Your task to perform on an android device: Show me popular games on the Play Store Image 0: 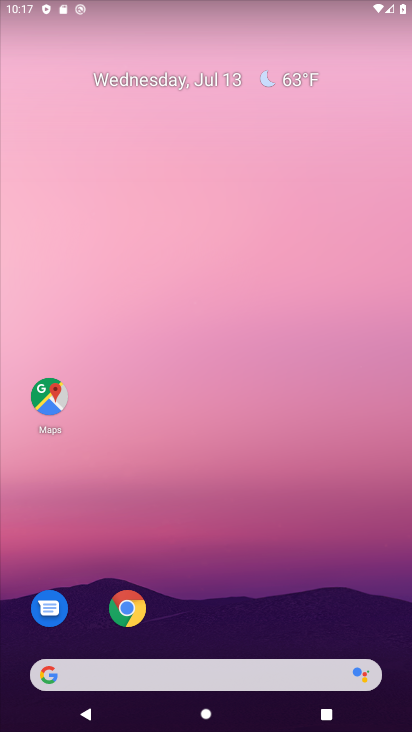
Step 0: drag from (308, 582) to (359, 47)
Your task to perform on an android device: Show me popular games on the Play Store Image 1: 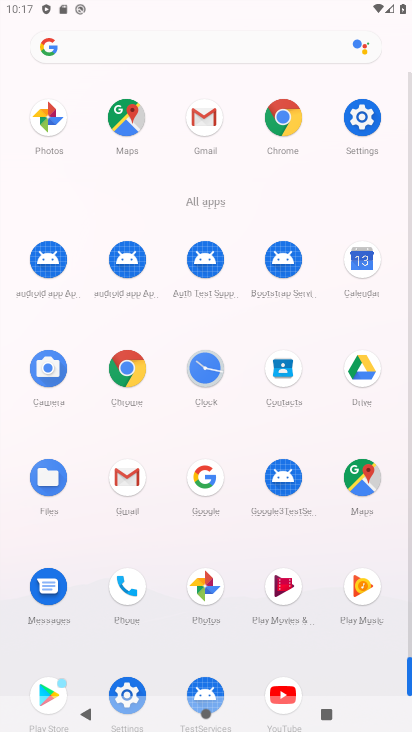
Step 1: click (47, 683)
Your task to perform on an android device: Show me popular games on the Play Store Image 2: 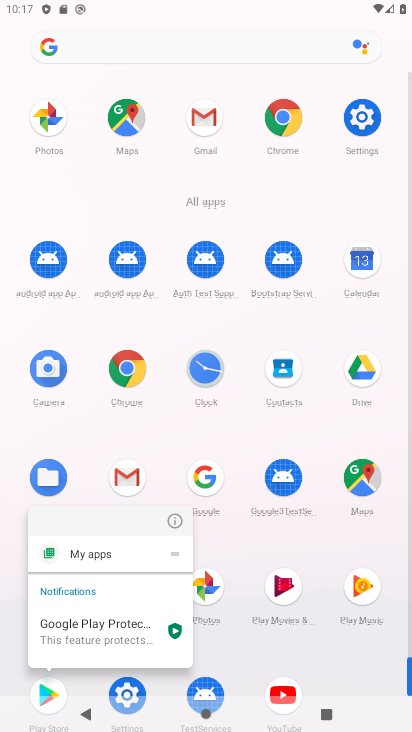
Step 2: click (52, 690)
Your task to perform on an android device: Show me popular games on the Play Store Image 3: 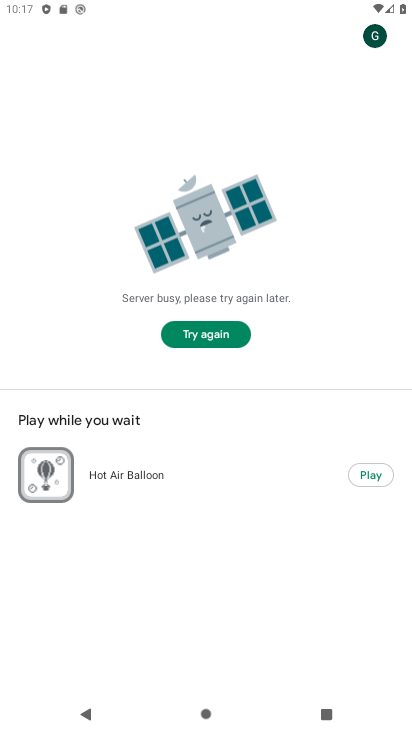
Step 3: task complete